Your task to perform on an android device: Open the calendar and show me this week's events Image 0: 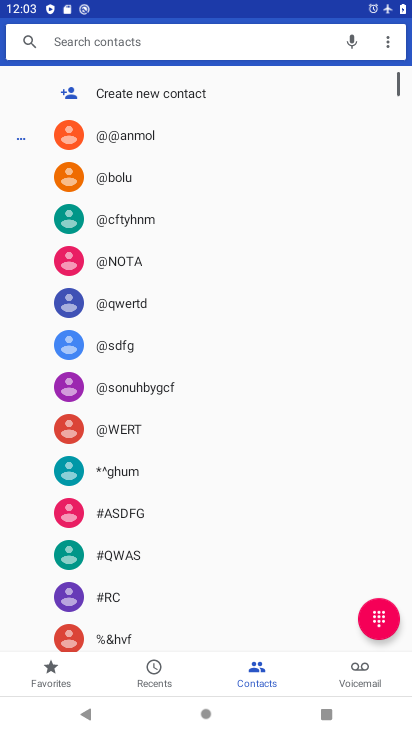
Step 0: press home button
Your task to perform on an android device: Open the calendar and show me this week's events Image 1: 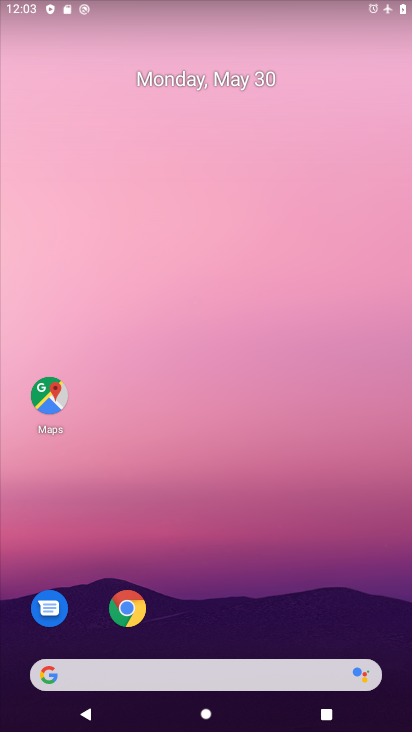
Step 1: drag from (197, 640) to (6, 478)
Your task to perform on an android device: Open the calendar and show me this week's events Image 2: 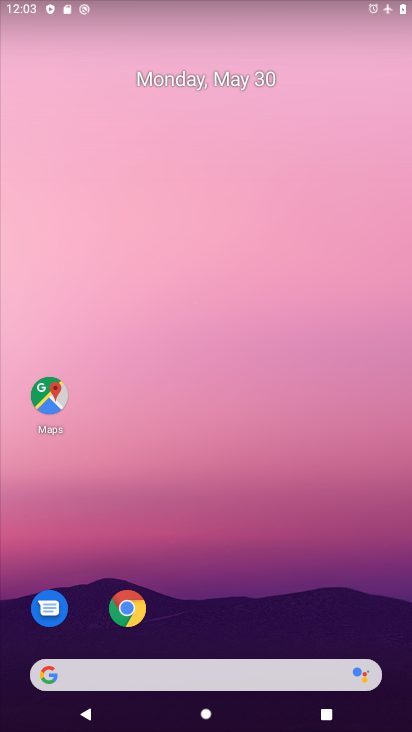
Step 2: drag from (181, 650) to (179, 0)
Your task to perform on an android device: Open the calendar and show me this week's events Image 3: 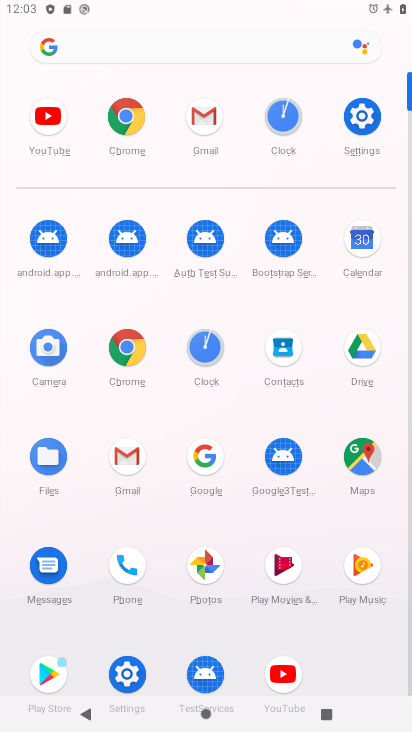
Step 3: click (368, 249)
Your task to perform on an android device: Open the calendar and show me this week's events Image 4: 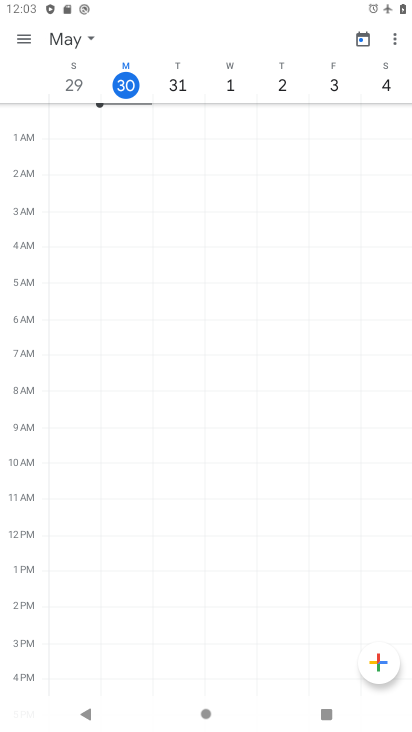
Step 4: click (23, 30)
Your task to perform on an android device: Open the calendar and show me this week's events Image 5: 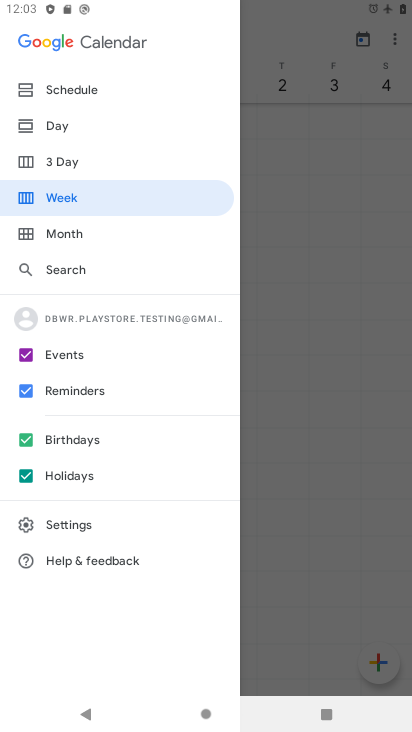
Step 5: click (36, 188)
Your task to perform on an android device: Open the calendar and show me this week's events Image 6: 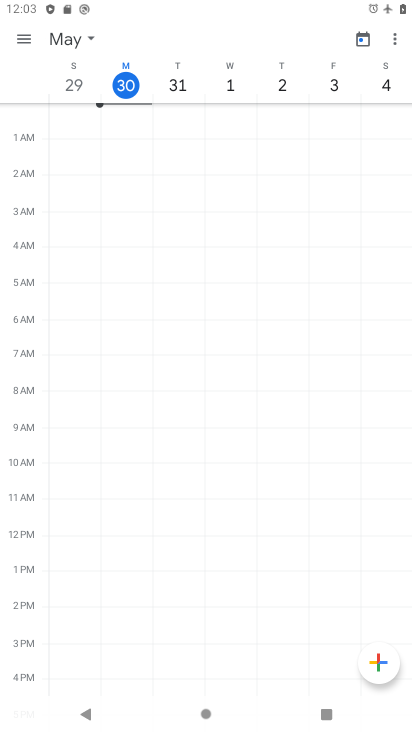
Step 6: task complete